Your task to perform on an android device: Empty the shopping cart on bestbuy.com. Image 0: 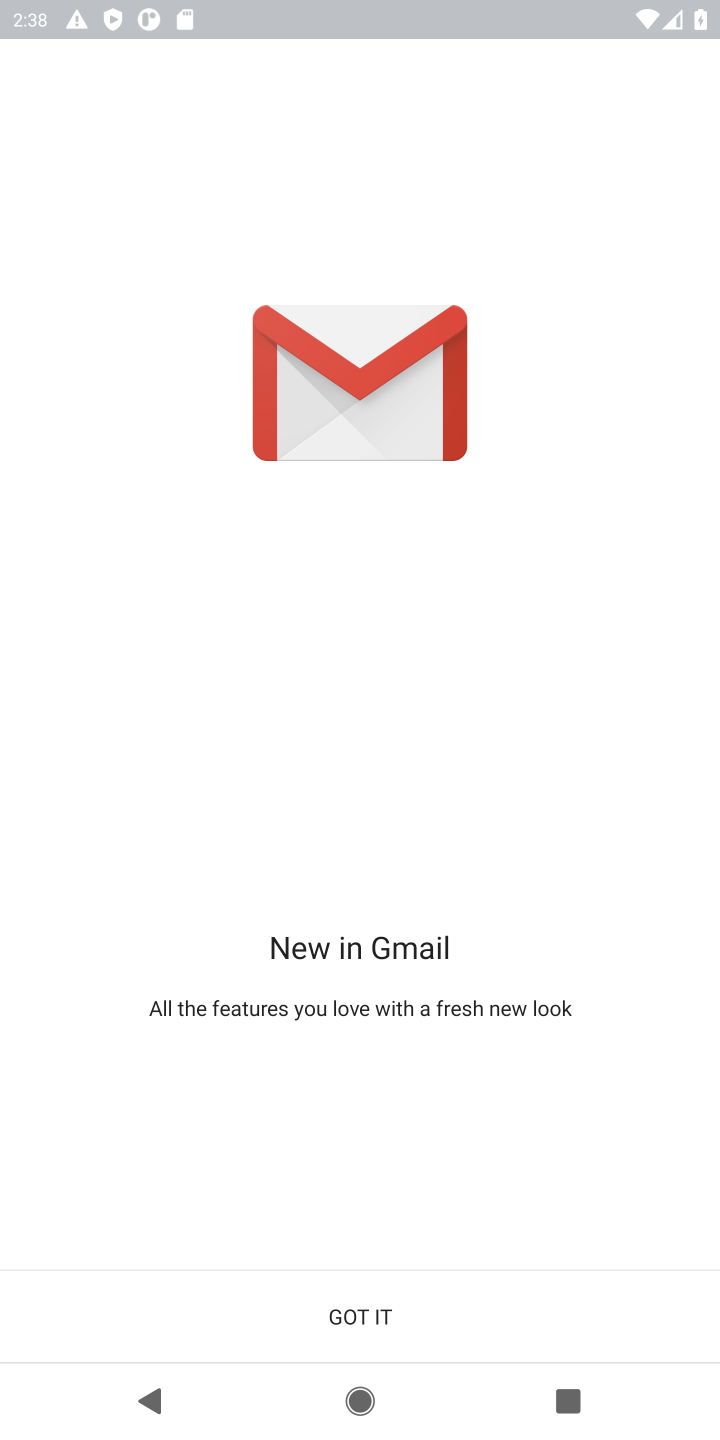
Step 0: press home button
Your task to perform on an android device: Empty the shopping cart on bestbuy.com. Image 1: 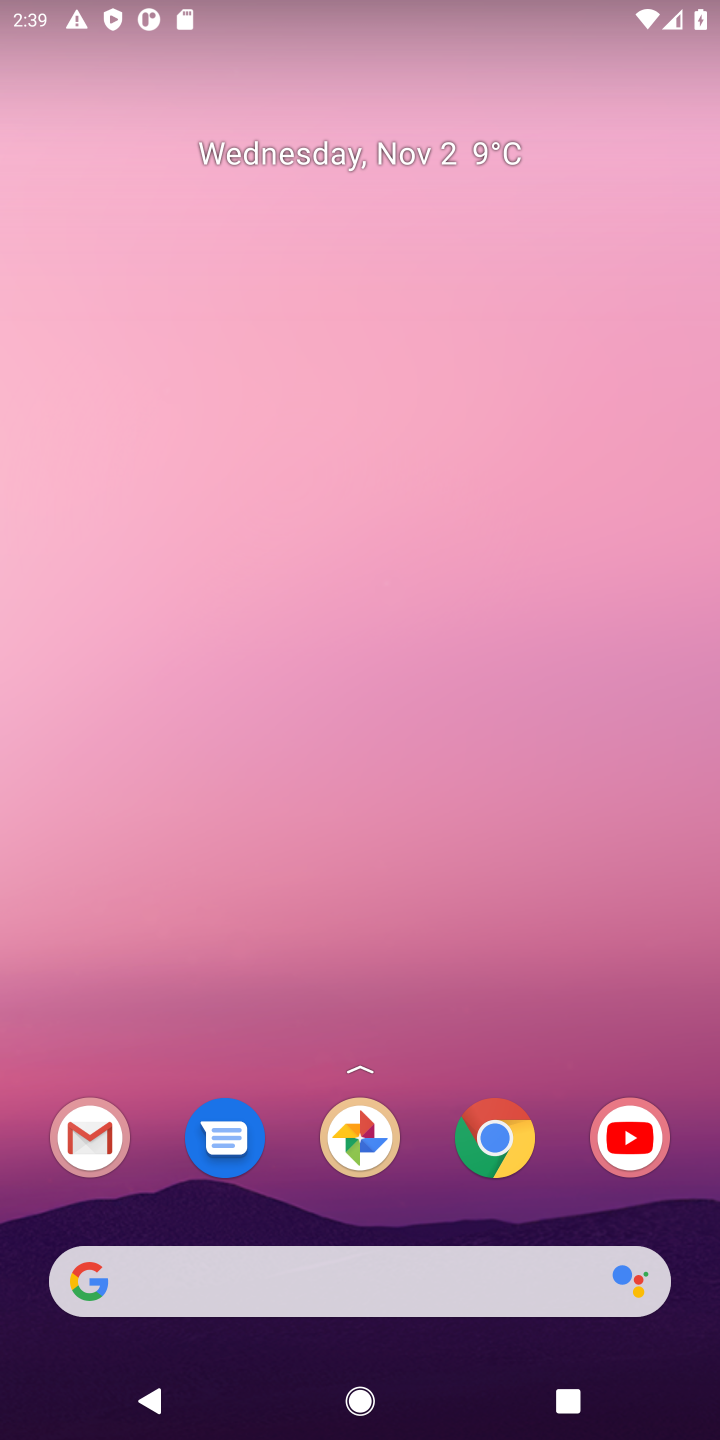
Step 1: click (515, 1116)
Your task to perform on an android device: Empty the shopping cart on bestbuy.com. Image 2: 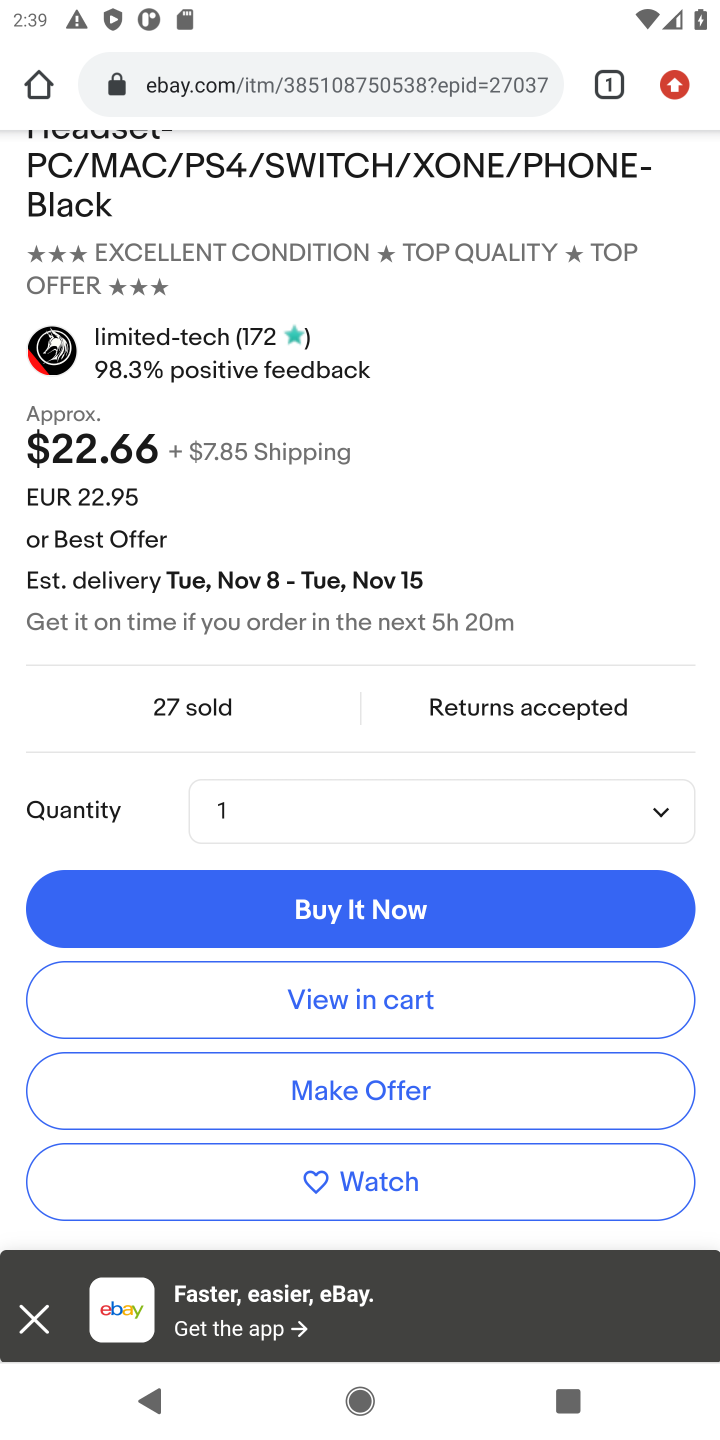
Step 2: click (258, 76)
Your task to perform on an android device: Empty the shopping cart on bestbuy.com. Image 3: 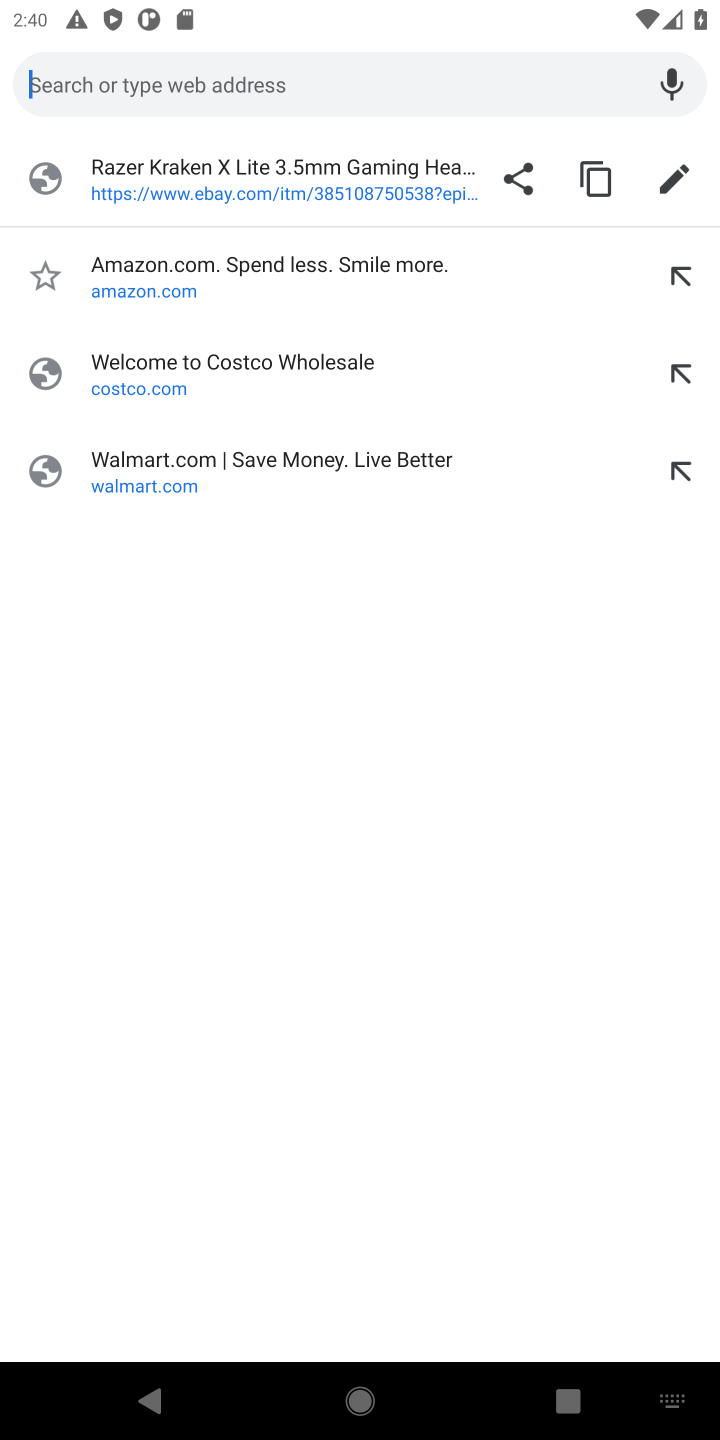
Step 3: type "bestbuy"
Your task to perform on an android device: Empty the shopping cart on bestbuy.com. Image 4: 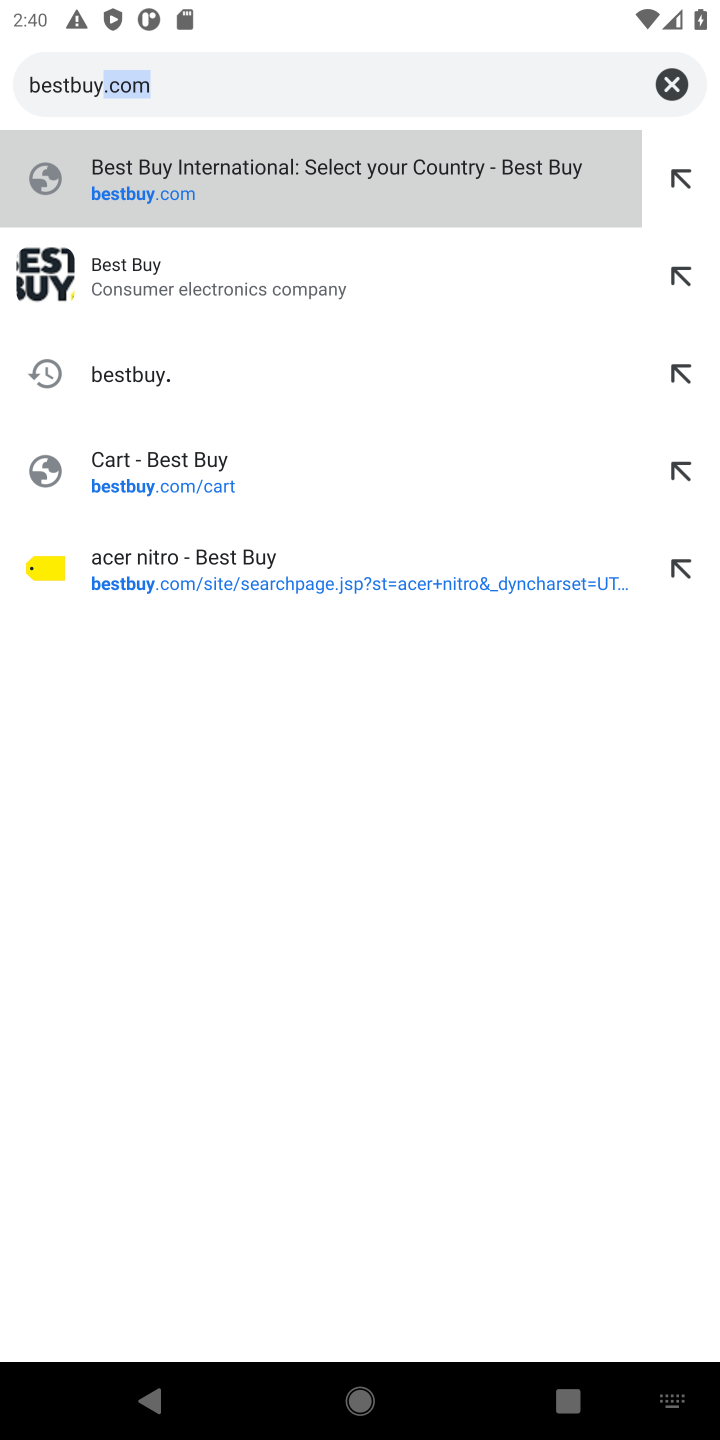
Step 4: click (164, 204)
Your task to perform on an android device: Empty the shopping cart on bestbuy.com. Image 5: 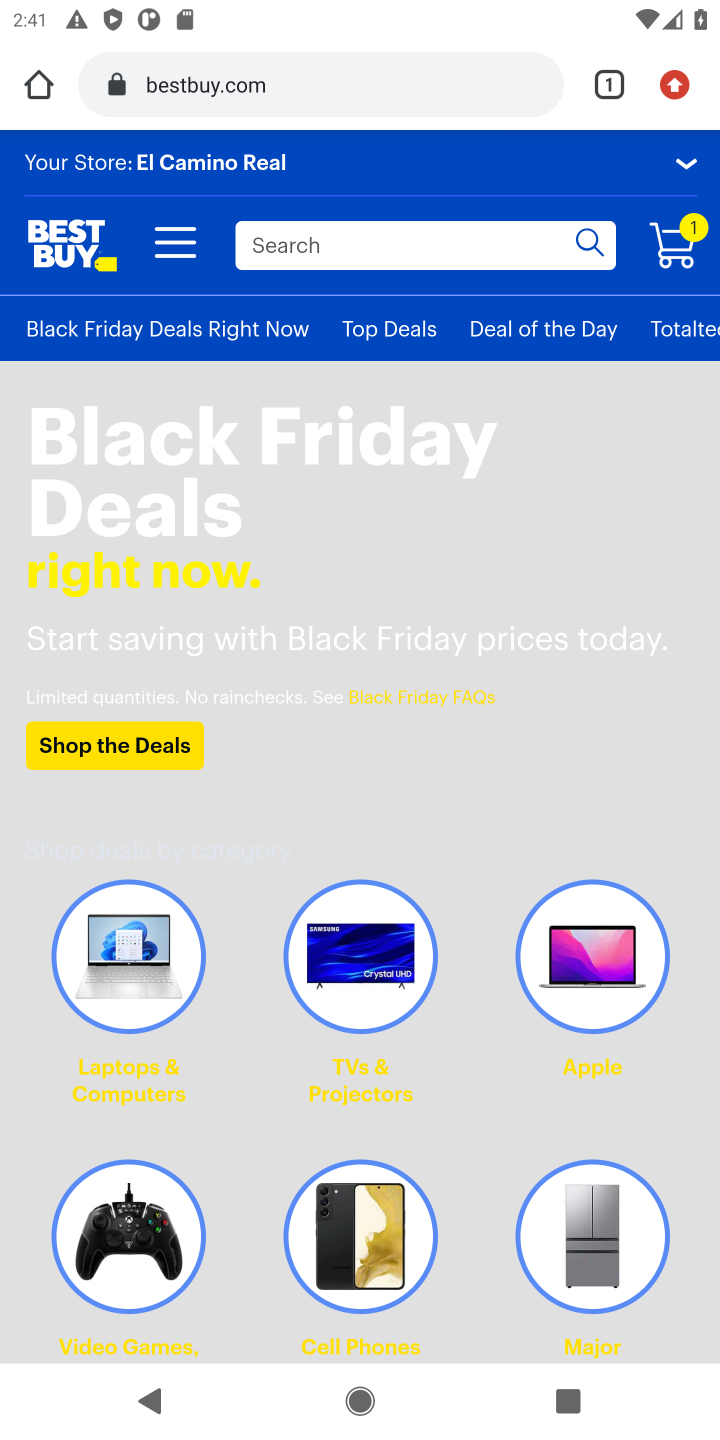
Step 5: click (685, 239)
Your task to perform on an android device: Empty the shopping cart on bestbuy.com. Image 6: 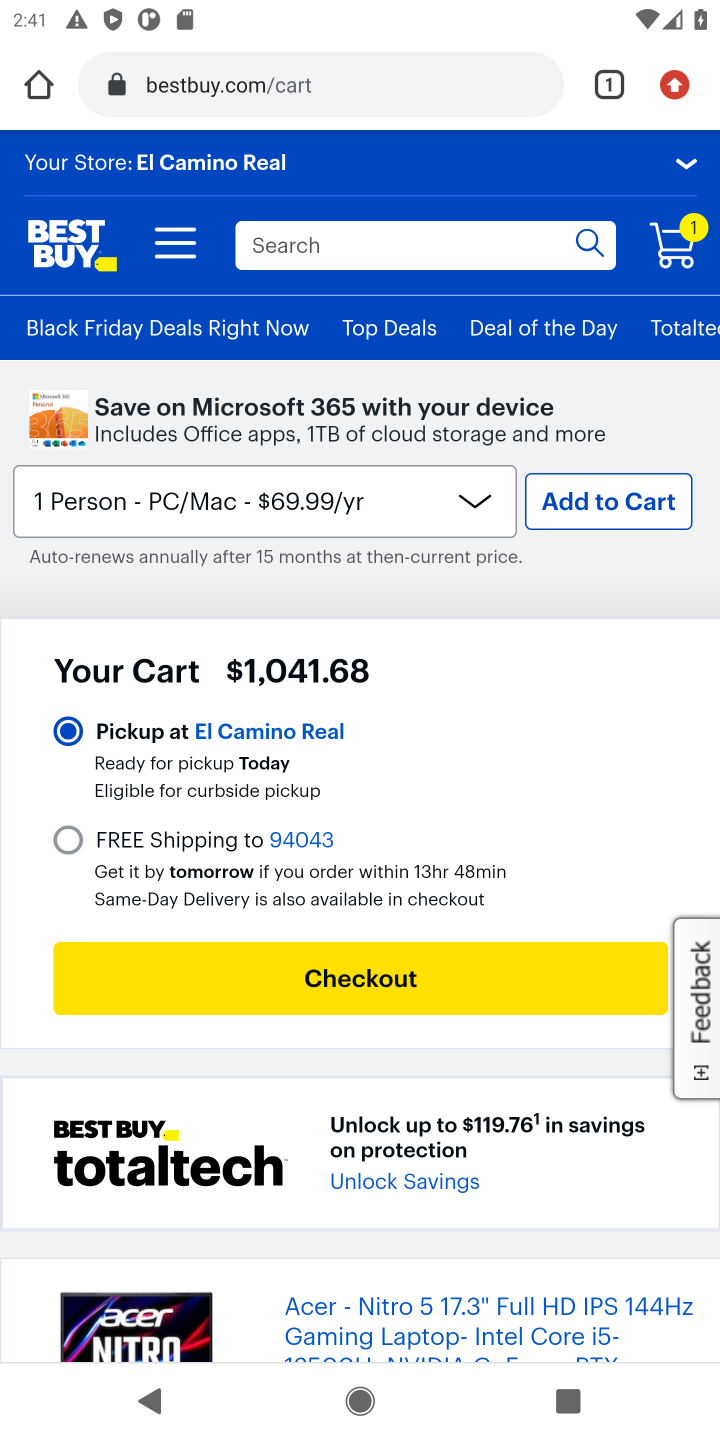
Step 6: drag from (373, 767) to (356, 370)
Your task to perform on an android device: Empty the shopping cart on bestbuy.com. Image 7: 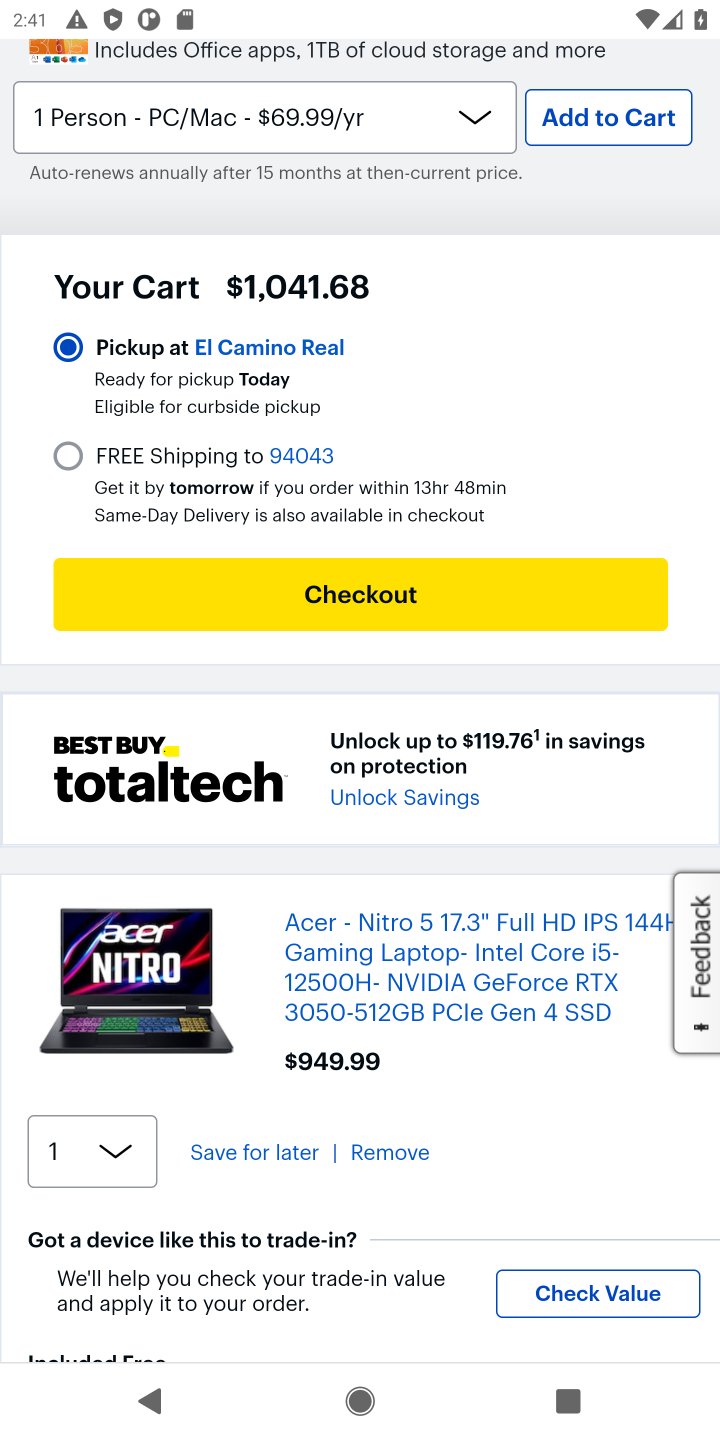
Step 7: click (378, 1158)
Your task to perform on an android device: Empty the shopping cart on bestbuy.com. Image 8: 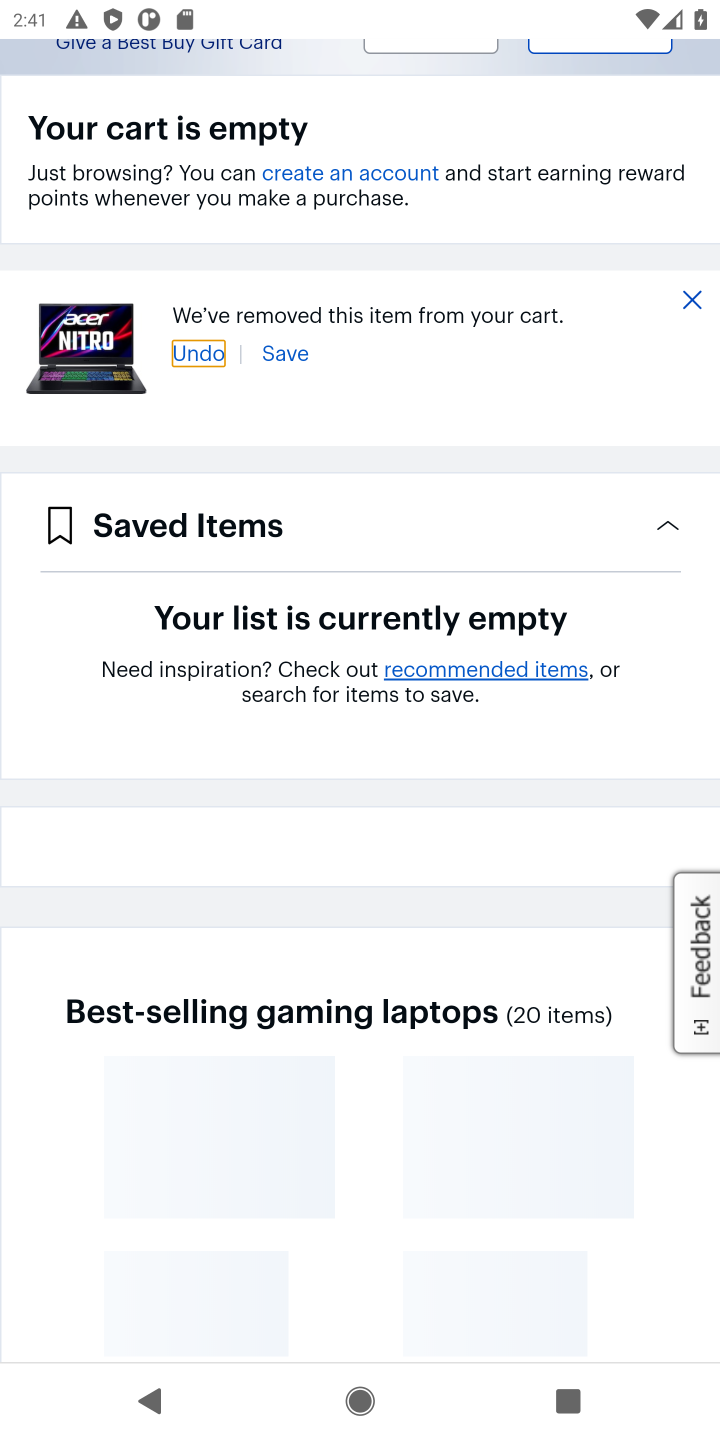
Step 8: task complete